Your task to perform on an android device: open a bookmark in the chrome app Image 0: 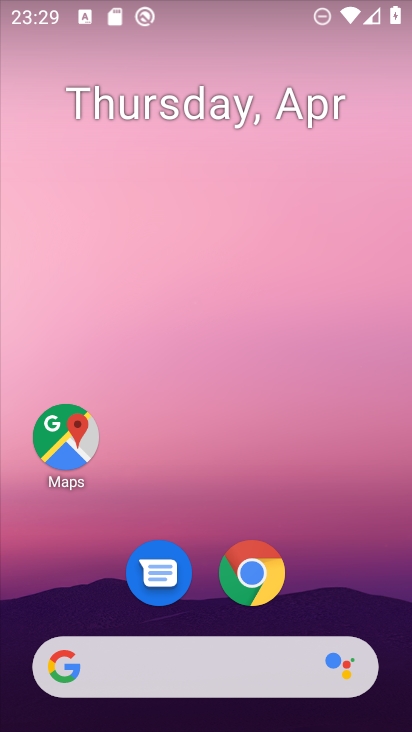
Step 0: drag from (321, 587) to (361, 51)
Your task to perform on an android device: open a bookmark in the chrome app Image 1: 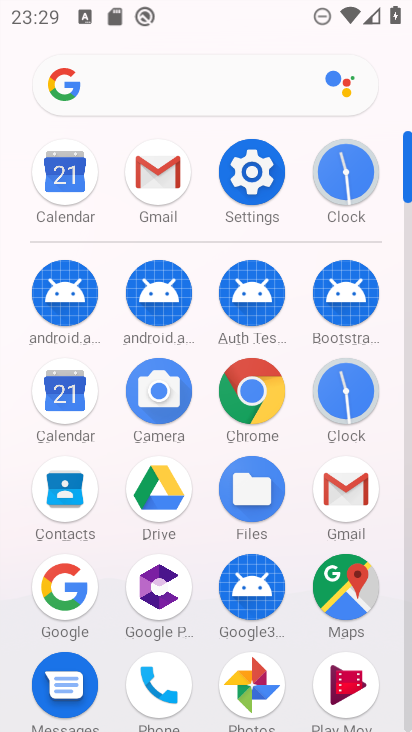
Step 1: click (261, 391)
Your task to perform on an android device: open a bookmark in the chrome app Image 2: 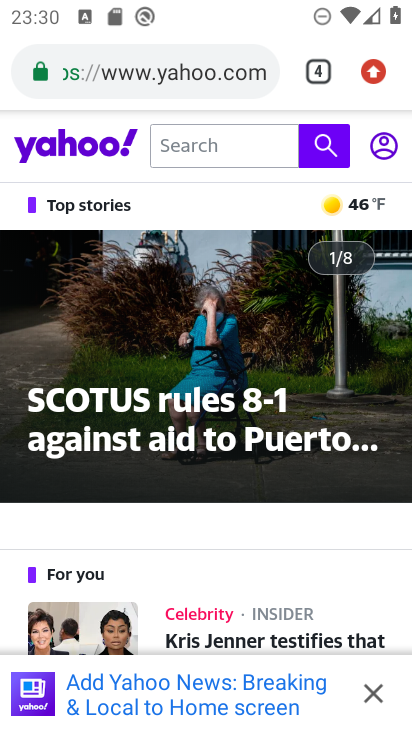
Step 2: click (376, 63)
Your task to perform on an android device: open a bookmark in the chrome app Image 3: 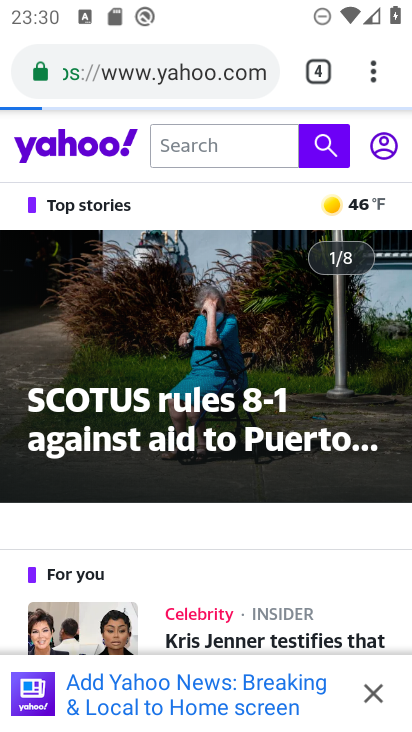
Step 3: click (372, 65)
Your task to perform on an android device: open a bookmark in the chrome app Image 4: 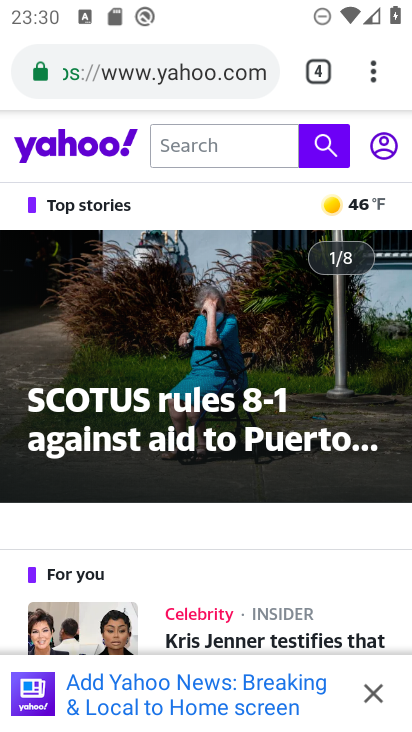
Step 4: click (375, 79)
Your task to perform on an android device: open a bookmark in the chrome app Image 5: 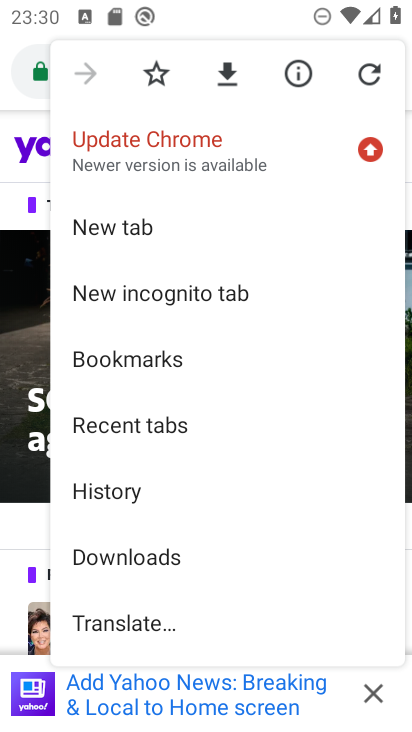
Step 5: click (175, 356)
Your task to perform on an android device: open a bookmark in the chrome app Image 6: 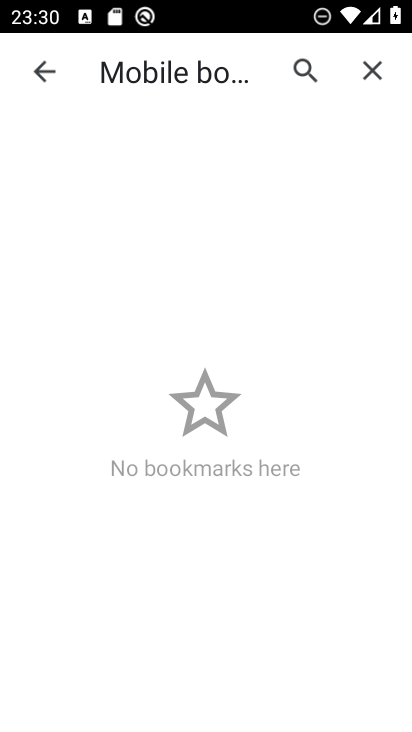
Step 6: task complete